Your task to perform on an android device: open app "WhatsApp Messenger" Image 0: 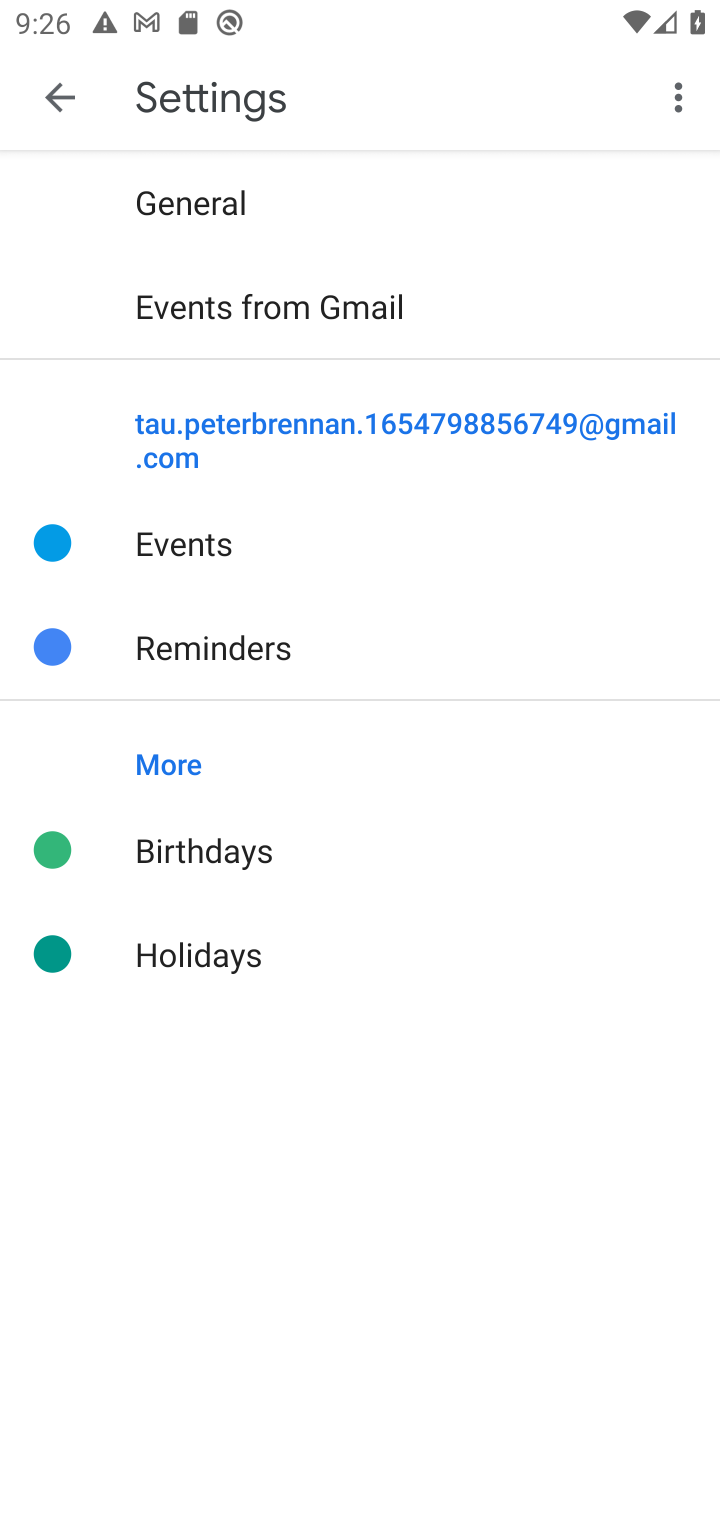
Step 0: press home button
Your task to perform on an android device: open app "WhatsApp Messenger" Image 1: 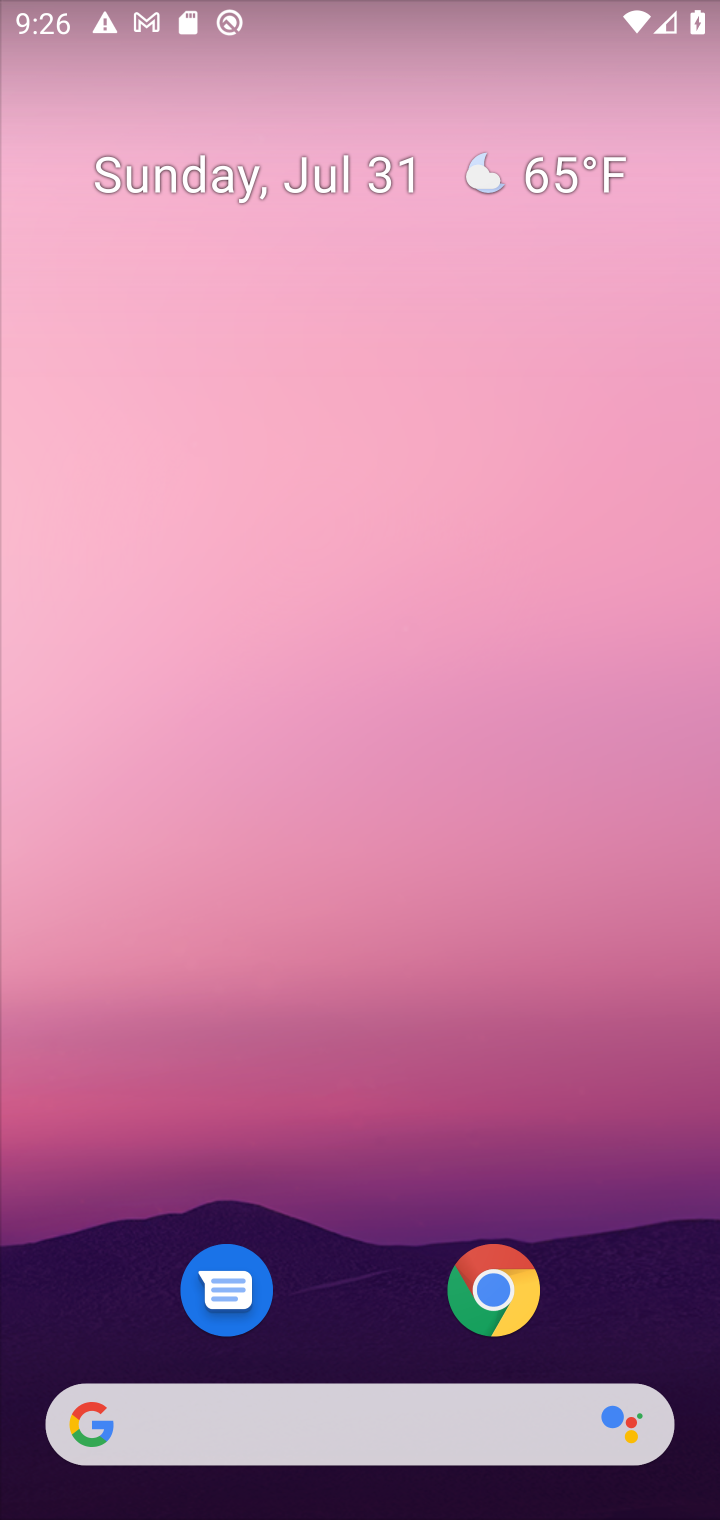
Step 1: drag from (657, 1202) to (641, 147)
Your task to perform on an android device: open app "WhatsApp Messenger" Image 2: 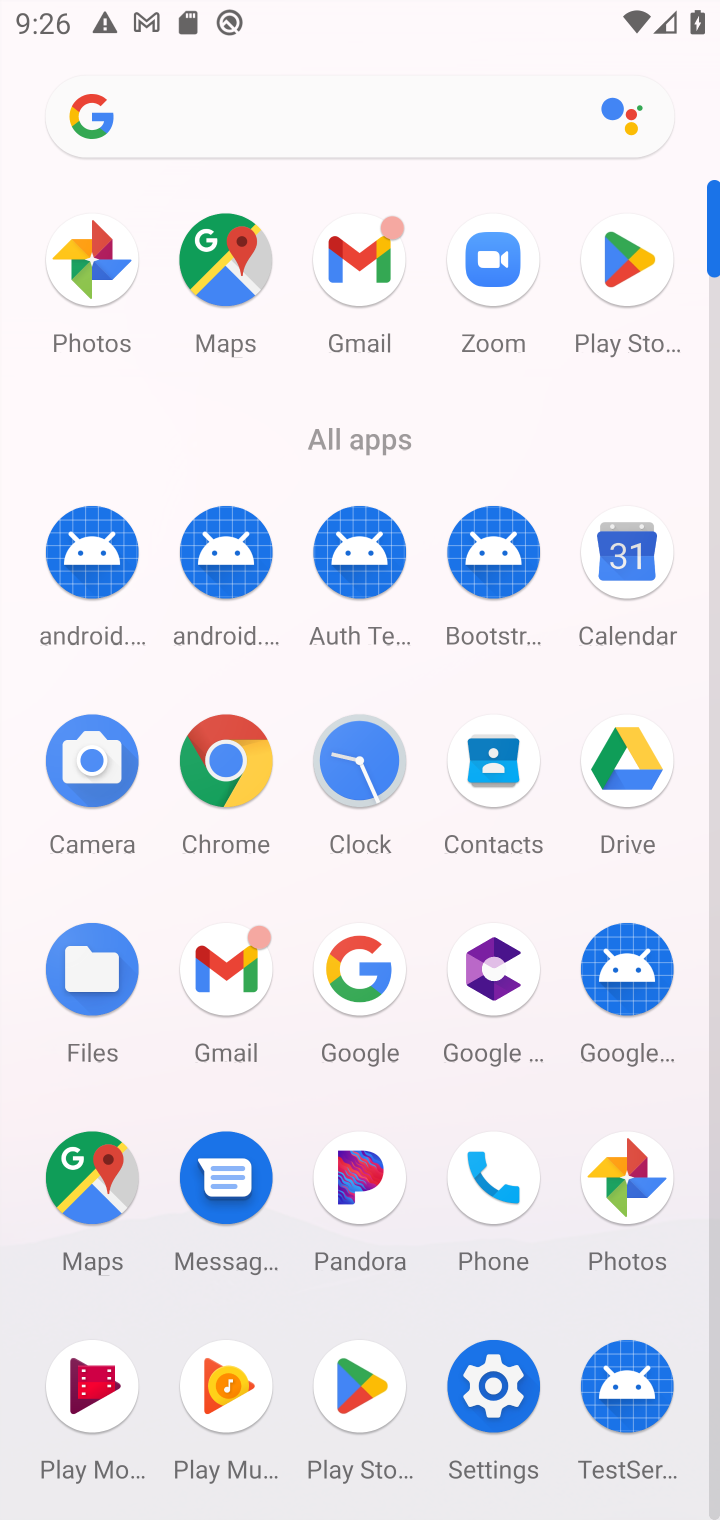
Step 2: click (642, 257)
Your task to perform on an android device: open app "WhatsApp Messenger" Image 3: 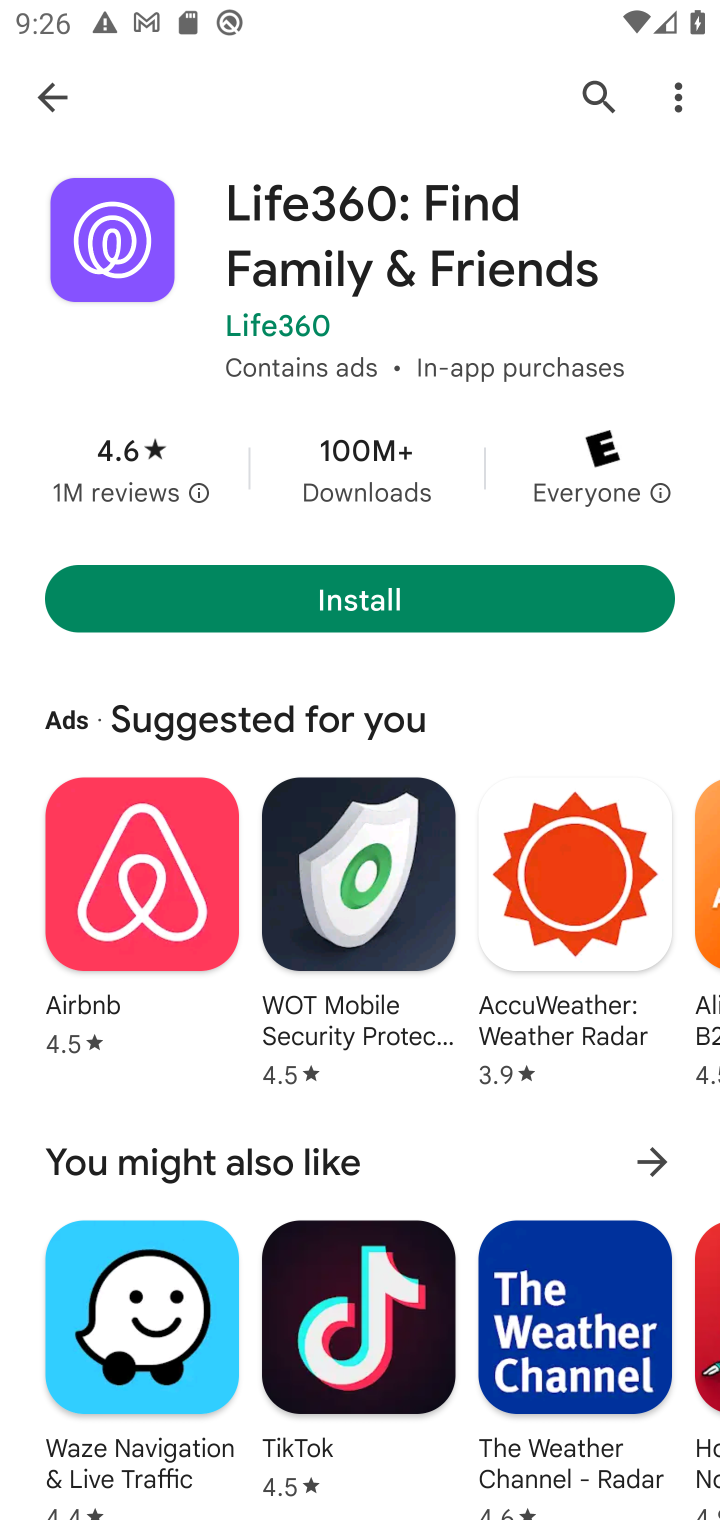
Step 3: press back button
Your task to perform on an android device: open app "WhatsApp Messenger" Image 4: 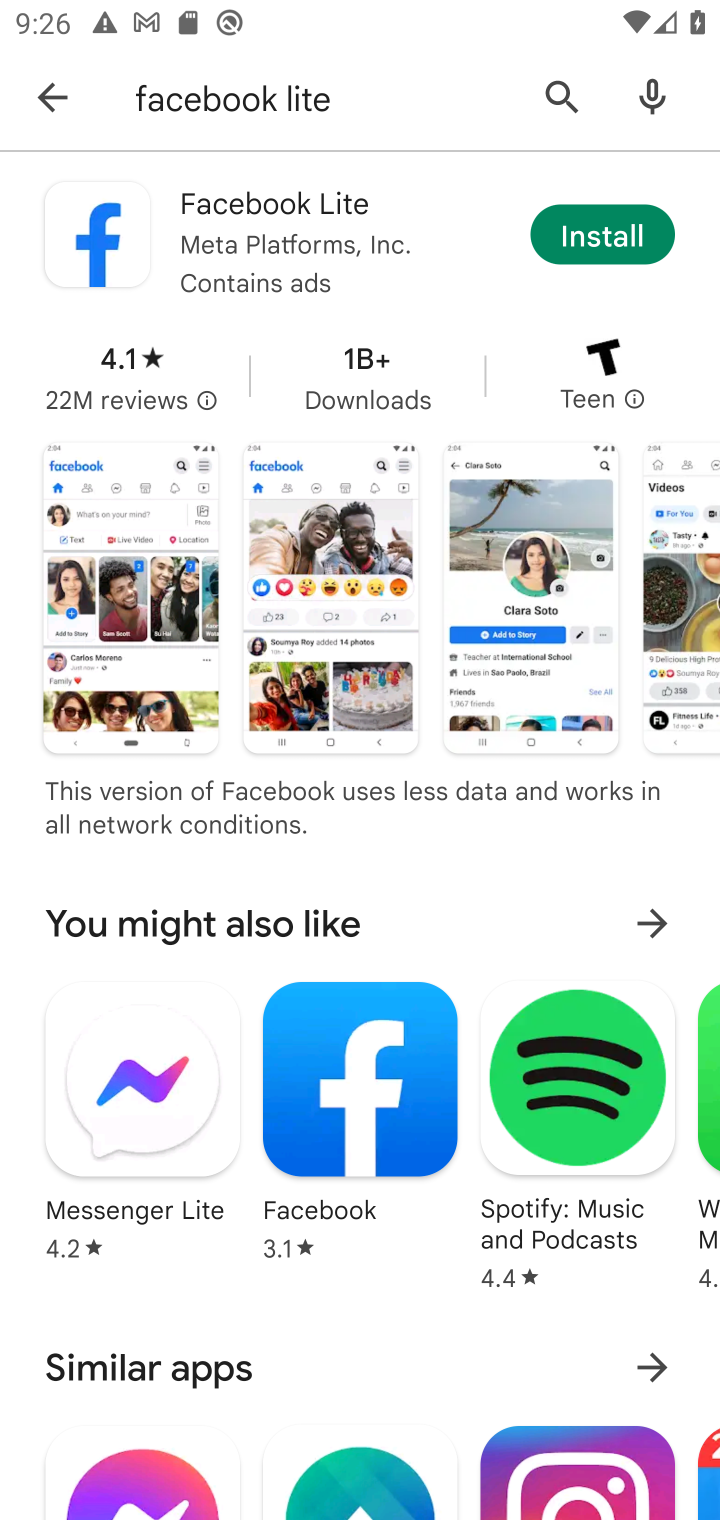
Step 4: click (554, 93)
Your task to perform on an android device: open app "WhatsApp Messenger" Image 5: 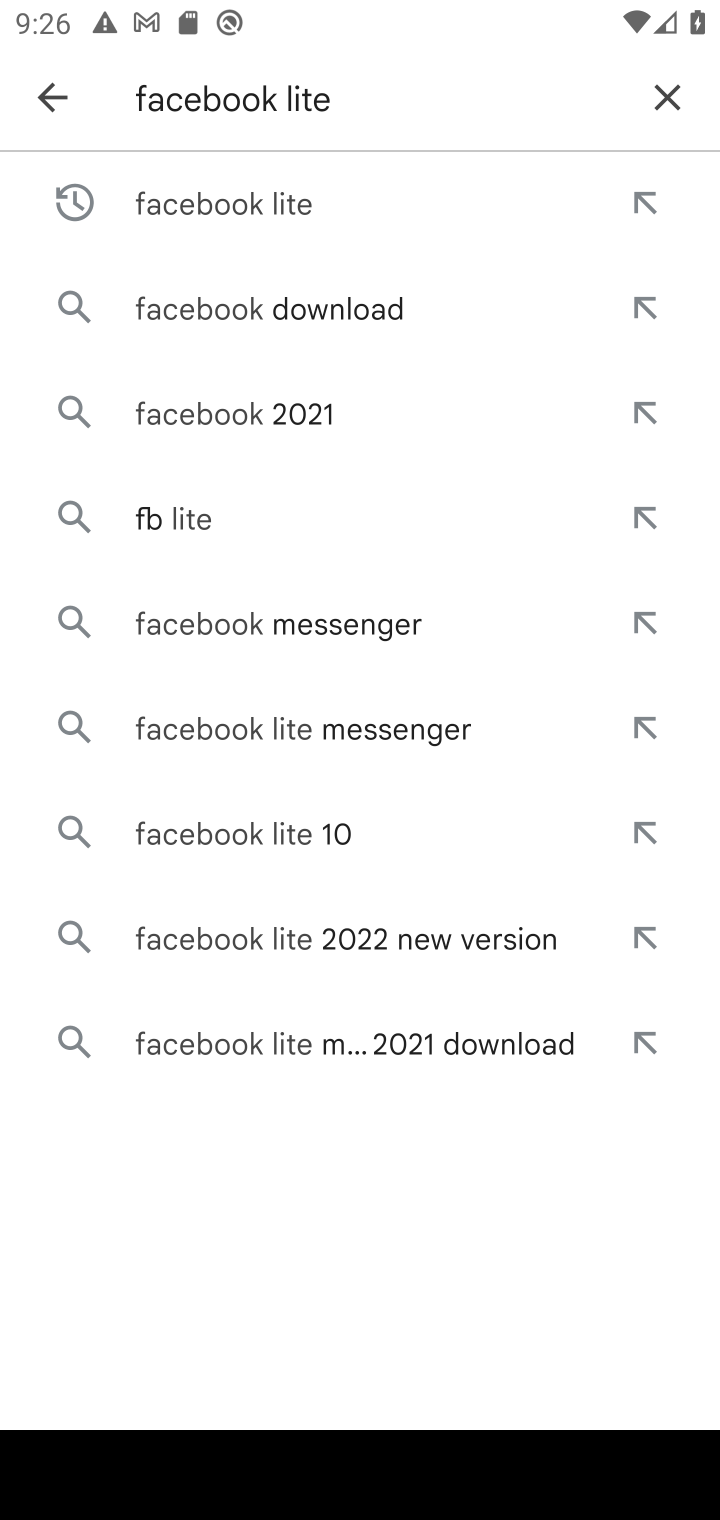
Step 5: click (652, 106)
Your task to perform on an android device: open app "WhatsApp Messenger" Image 6: 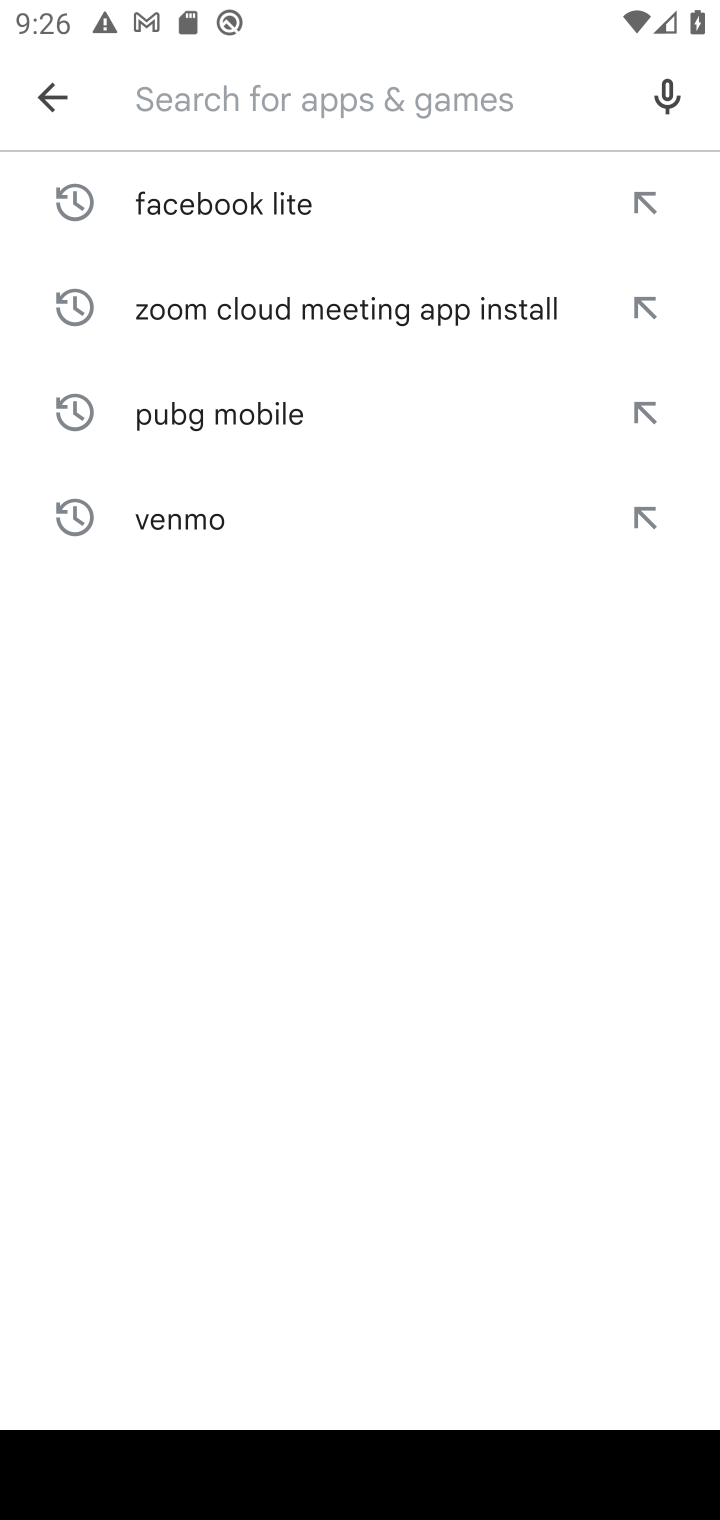
Step 6: type "whatsapp messenger"
Your task to perform on an android device: open app "WhatsApp Messenger" Image 7: 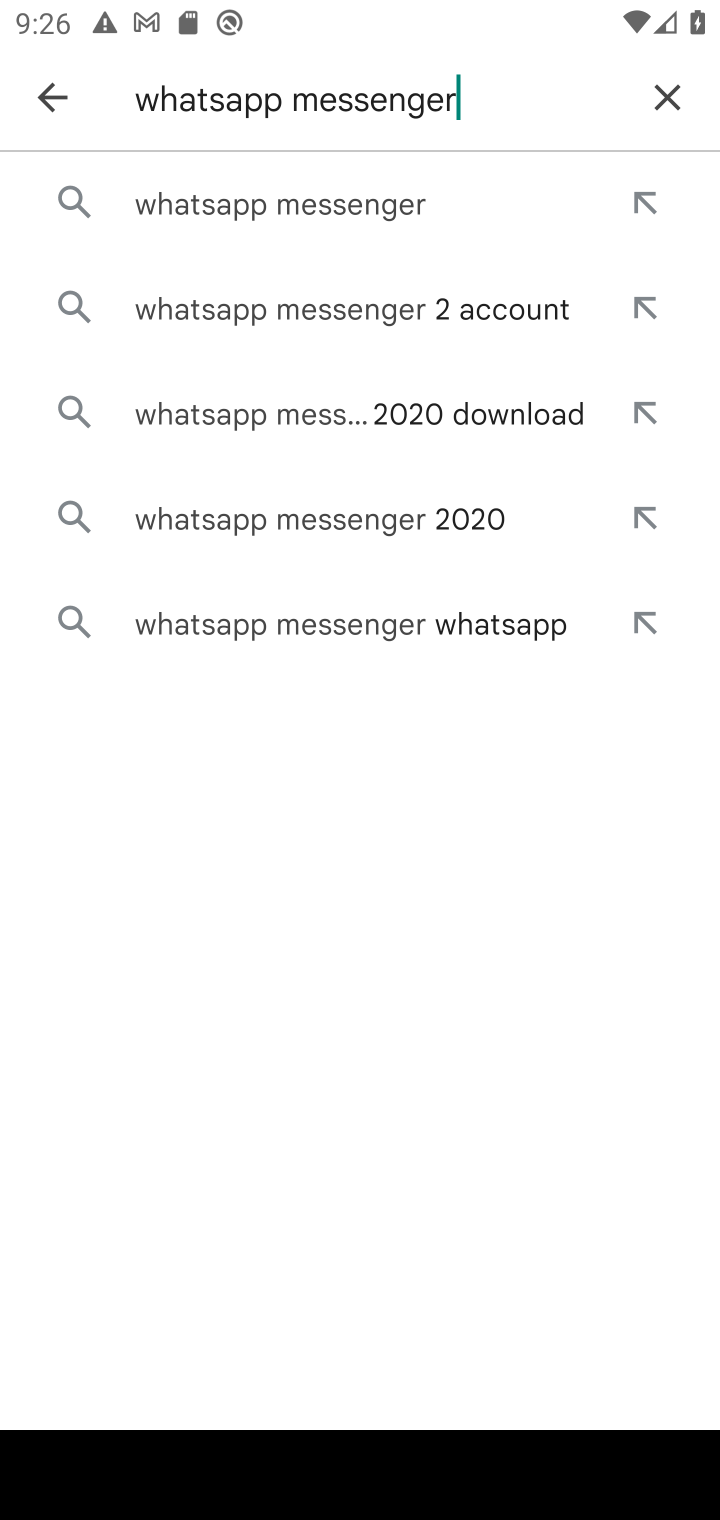
Step 7: click (361, 209)
Your task to perform on an android device: open app "WhatsApp Messenger" Image 8: 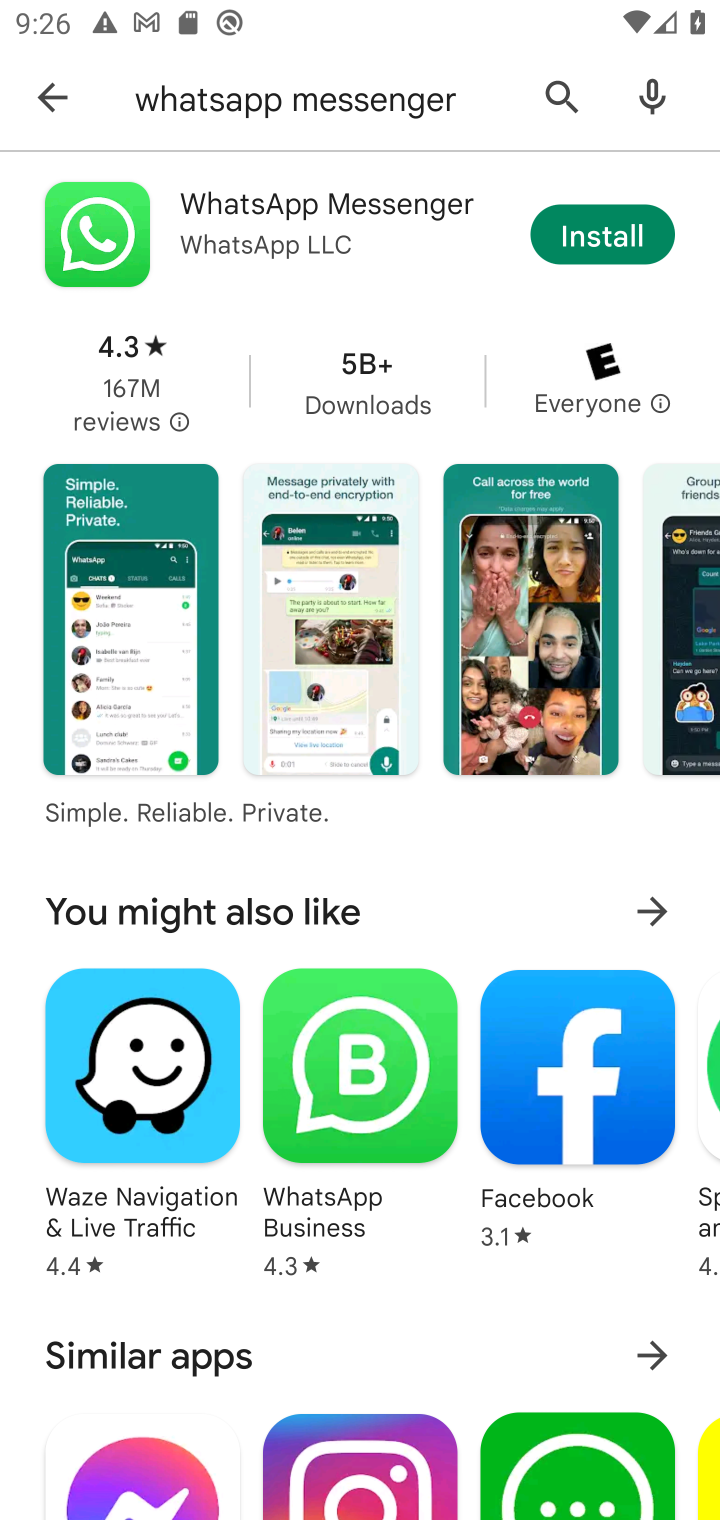
Step 8: task complete